Your task to perform on an android device: delete a single message in the gmail app Image 0: 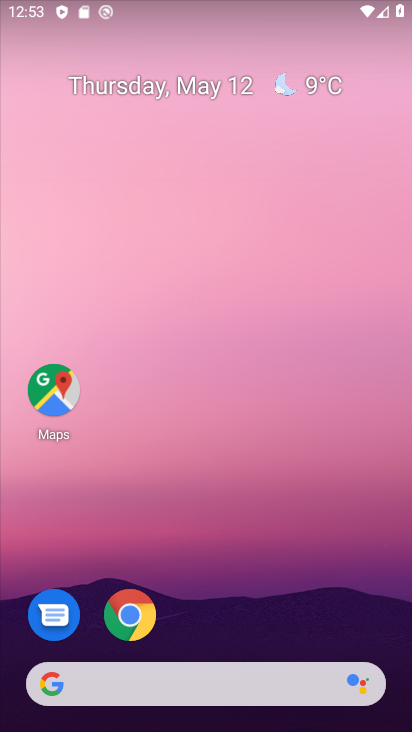
Step 0: drag from (252, 569) to (237, 20)
Your task to perform on an android device: delete a single message in the gmail app Image 1: 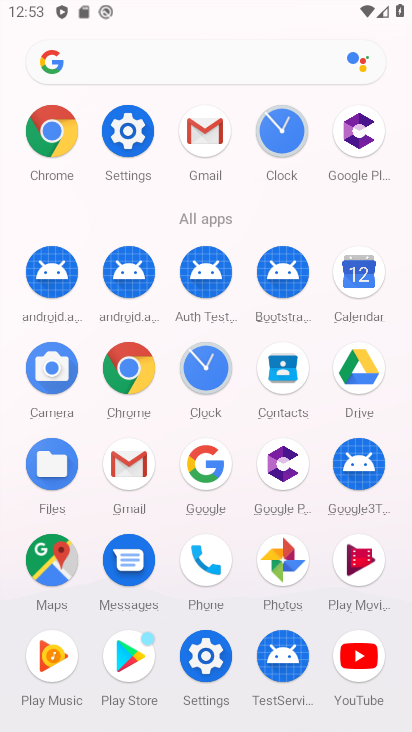
Step 1: click (195, 129)
Your task to perform on an android device: delete a single message in the gmail app Image 2: 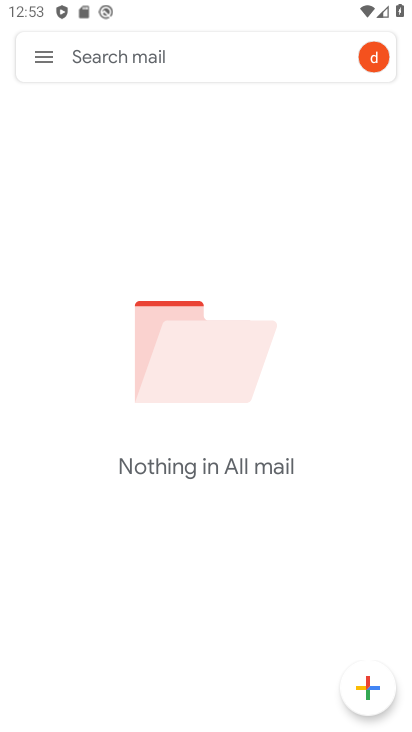
Step 2: task complete